Your task to perform on an android device: delete a single message in the gmail app Image 0: 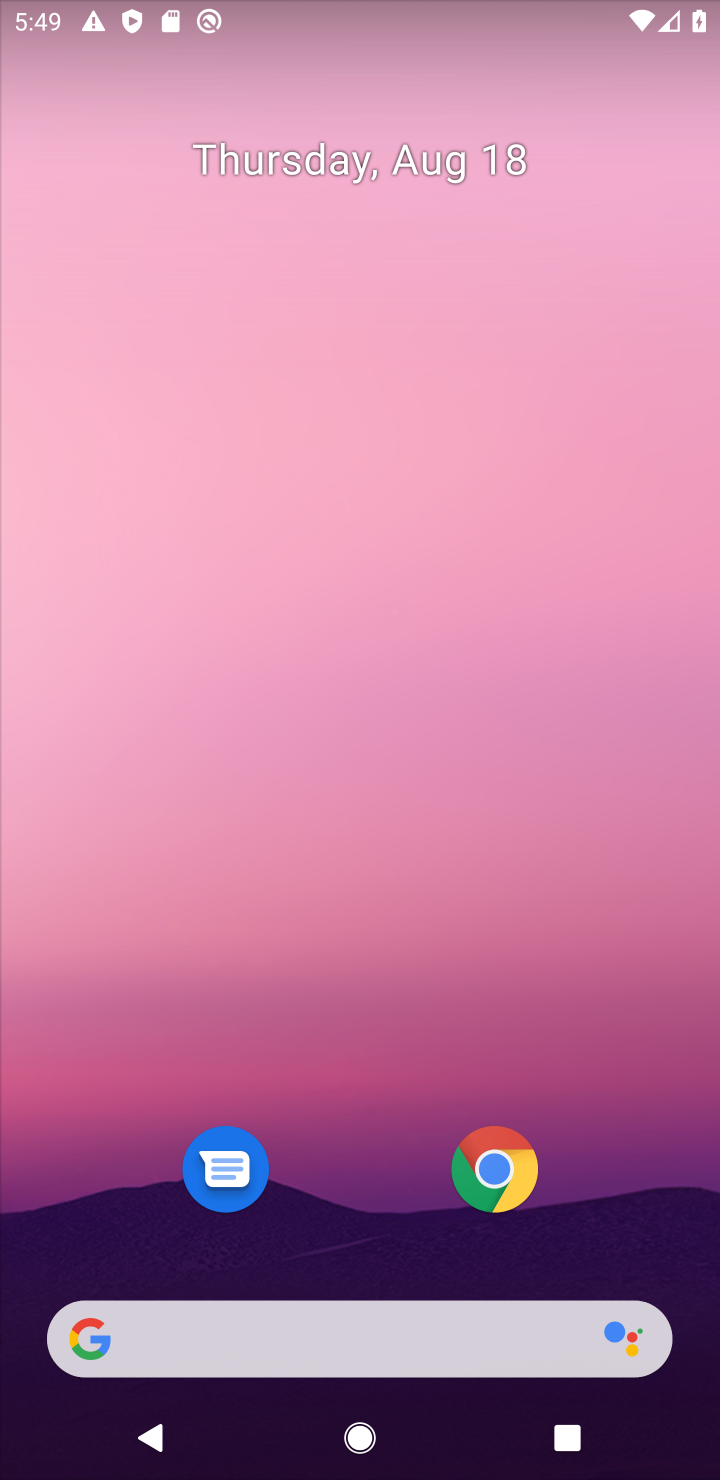
Step 0: press home button
Your task to perform on an android device: delete a single message in the gmail app Image 1: 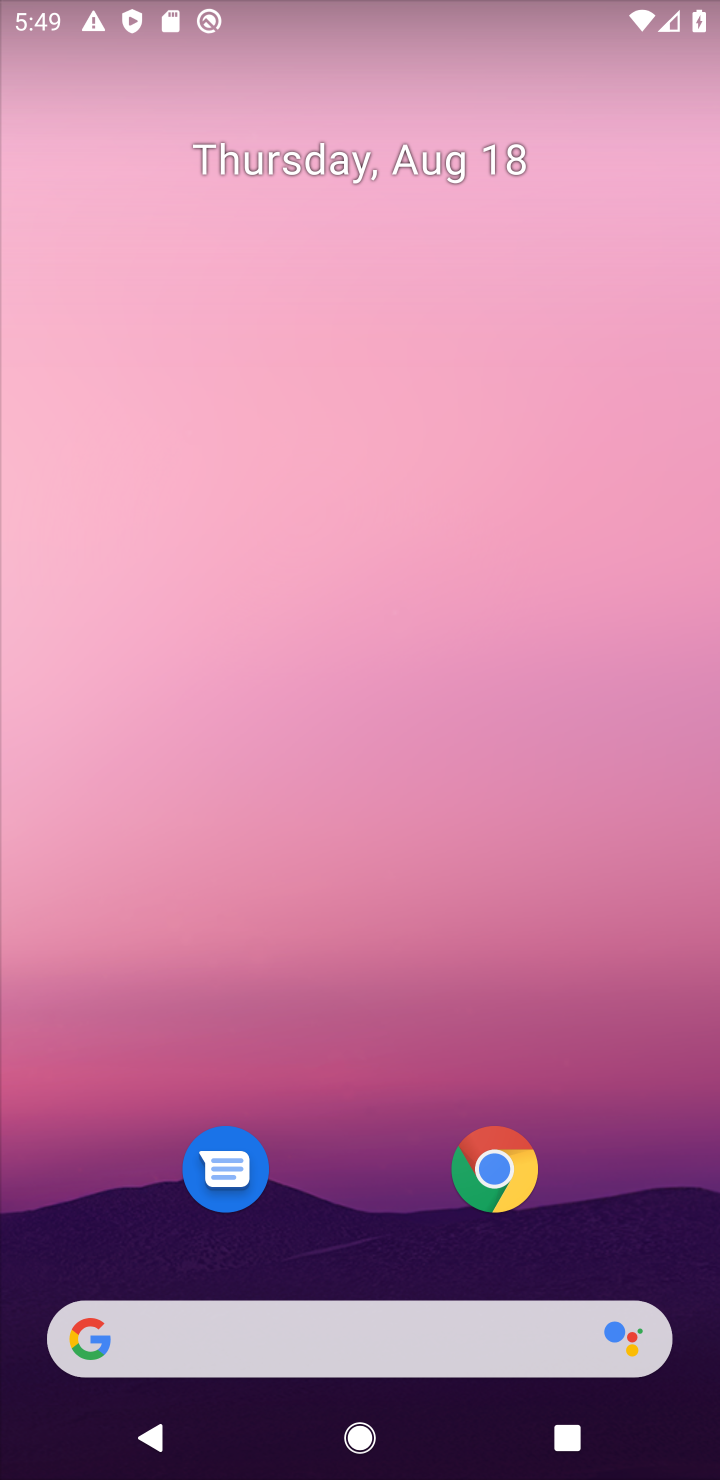
Step 1: drag from (364, 1172) to (247, 46)
Your task to perform on an android device: delete a single message in the gmail app Image 2: 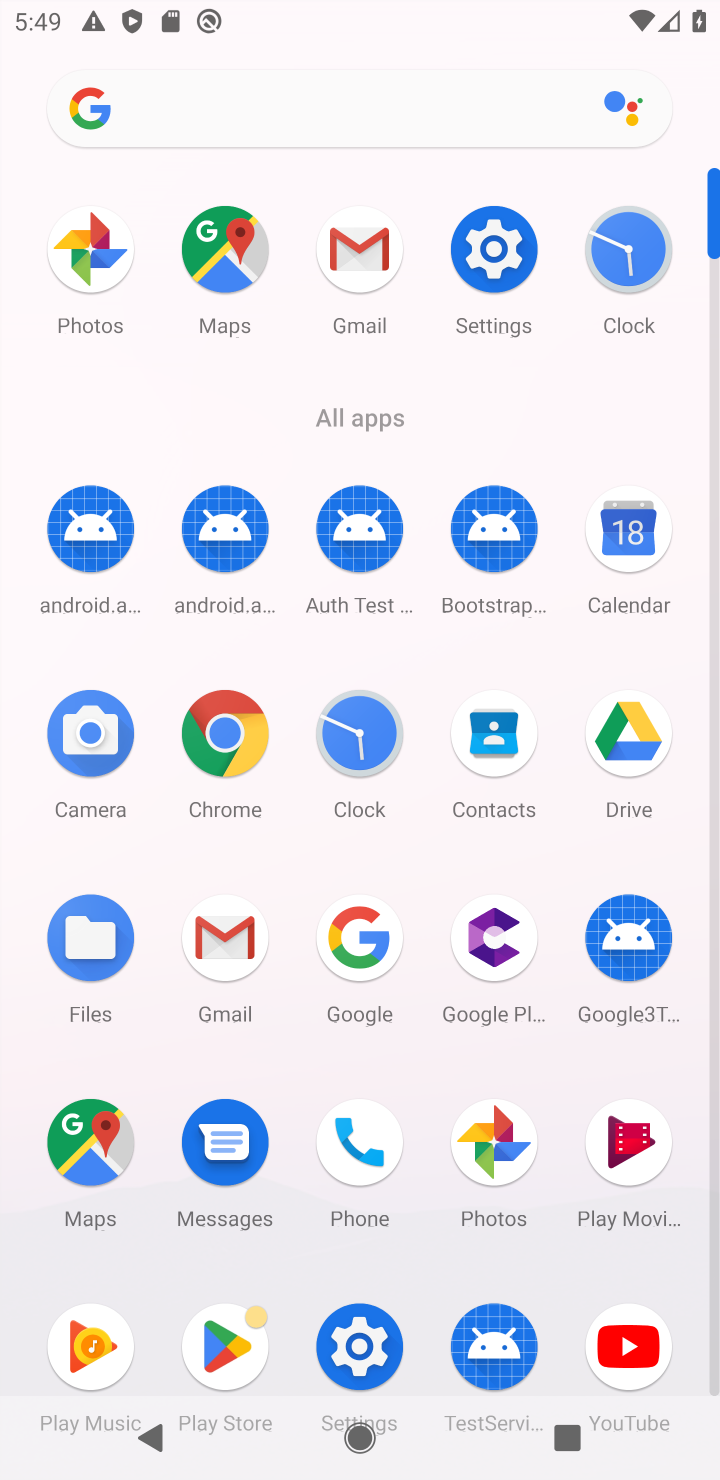
Step 2: click (365, 288)
Your task to perform on an android device: delete a single message in the gmail app Image 3: 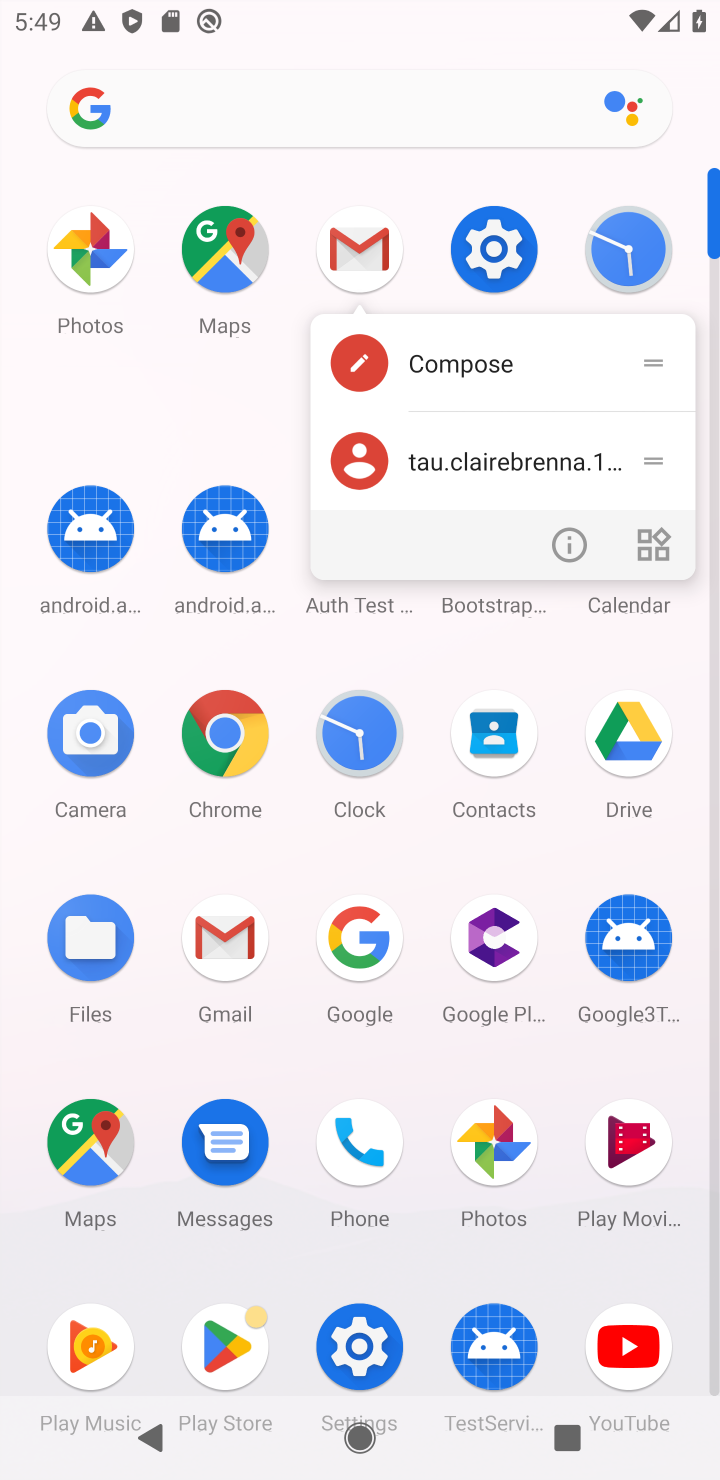
Step 3: click (367, 275)
Your task to perform on an android device: delete a single message in the gmail app Image 4: 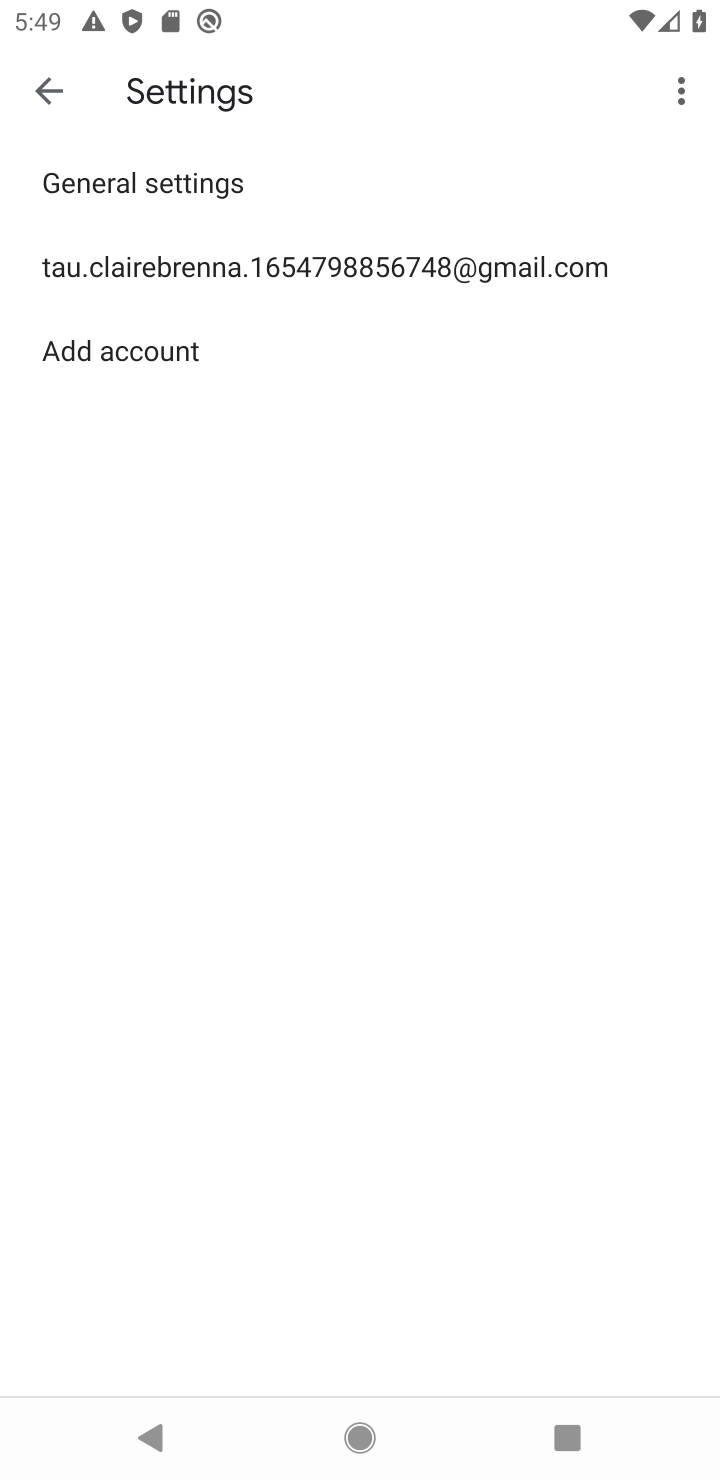
Step 4: press back button
Your task to perform on an android device: delete a single message in the gmail app Image 5: 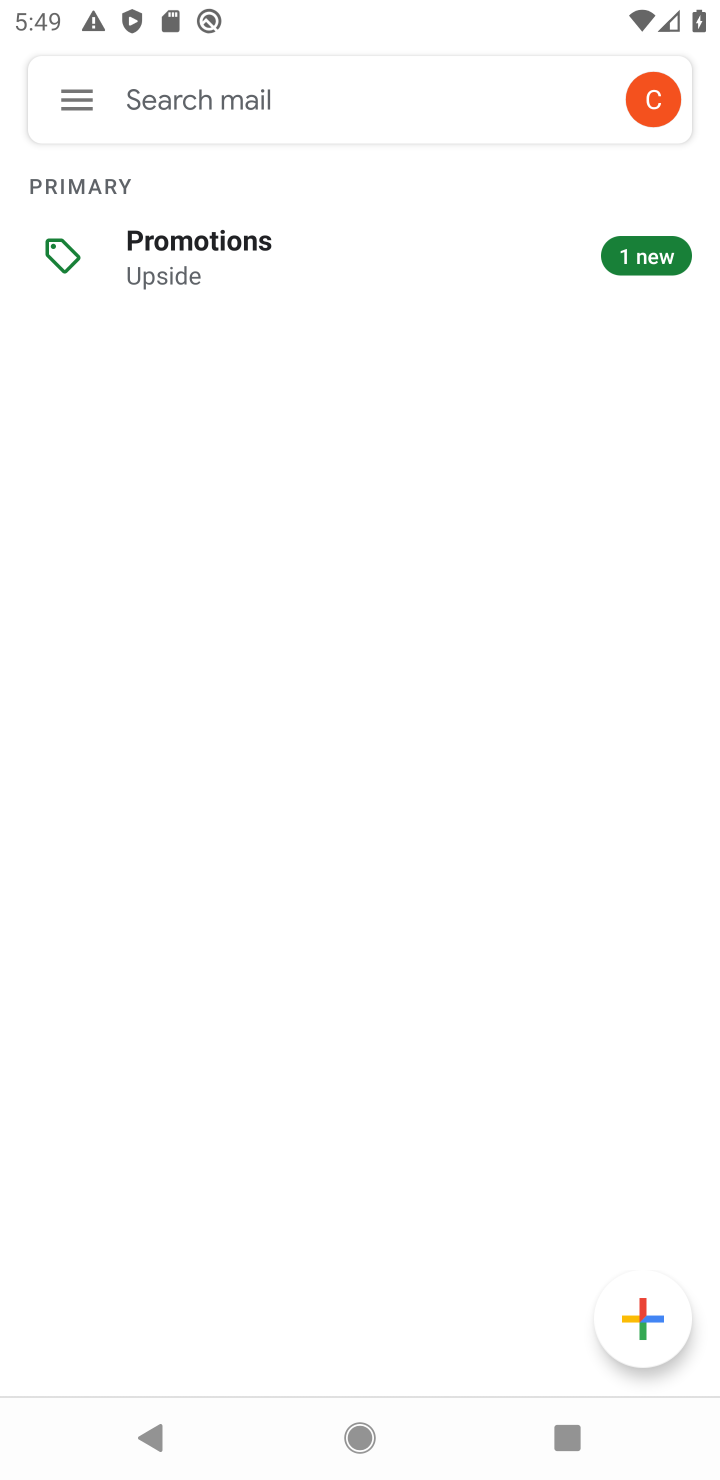
Step 5: click (77, 101)
Your task to perform on an android device: delete a single message in the gmail app Image 6: 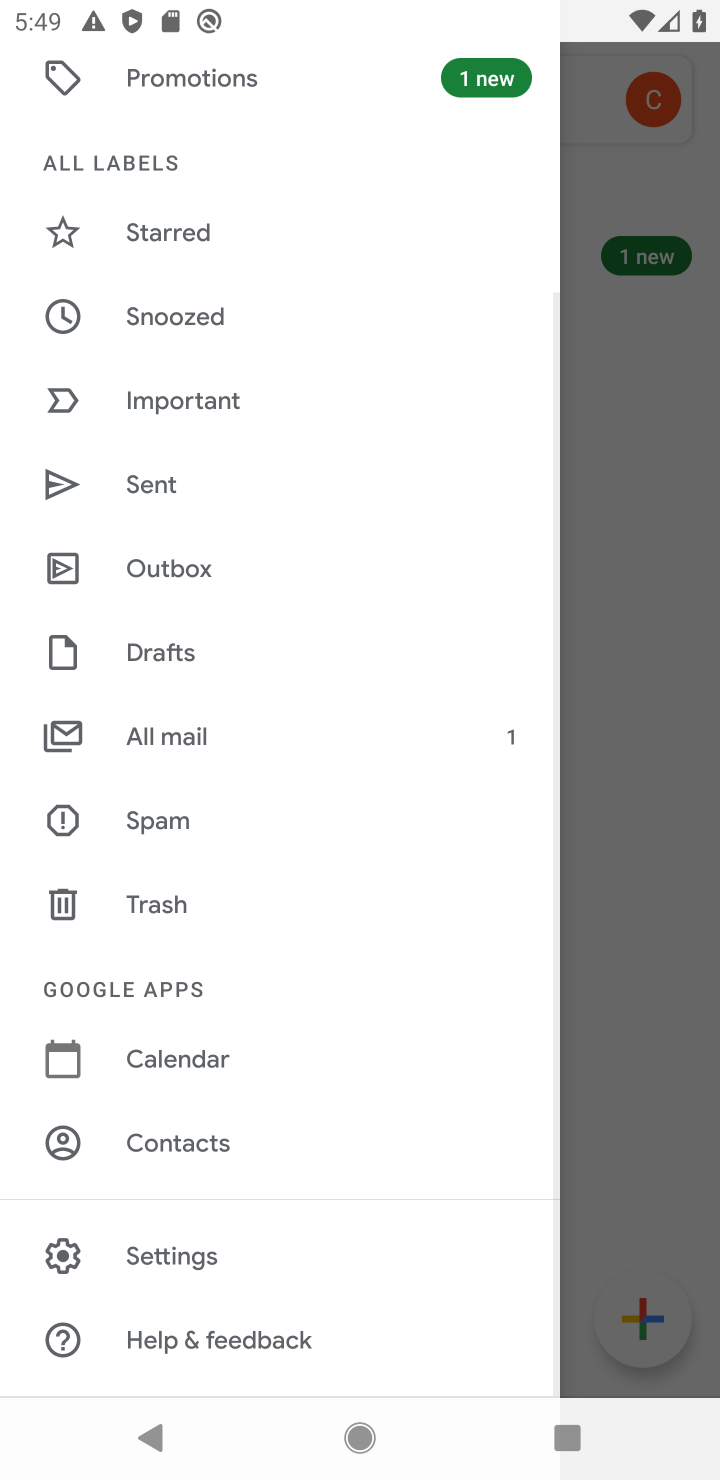
Step 6: click (186, 737)
Your task to perform on an android device: delete a single message in the gmail app Image 7: 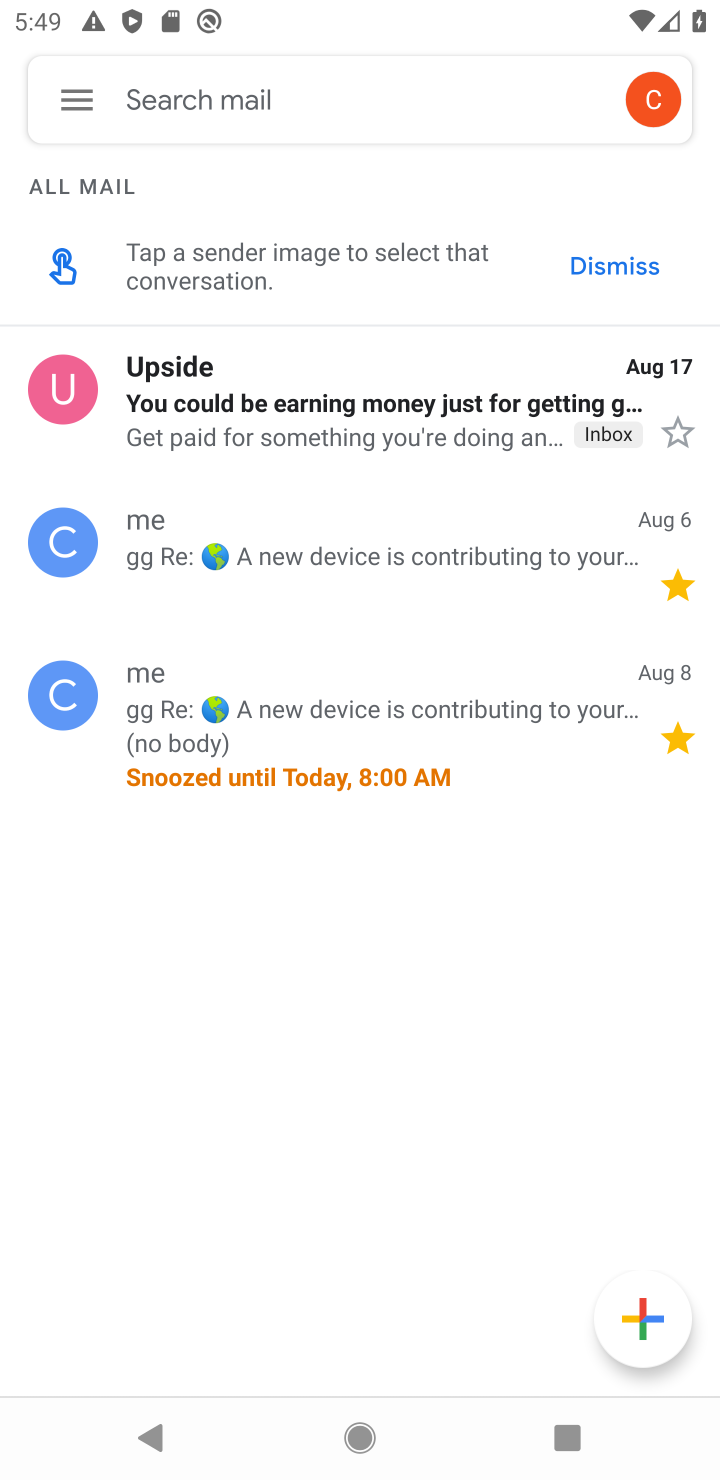
Step 7: click (441, 413)
Your task to perform on an android device: delete a single message in the gmail app Image 8: 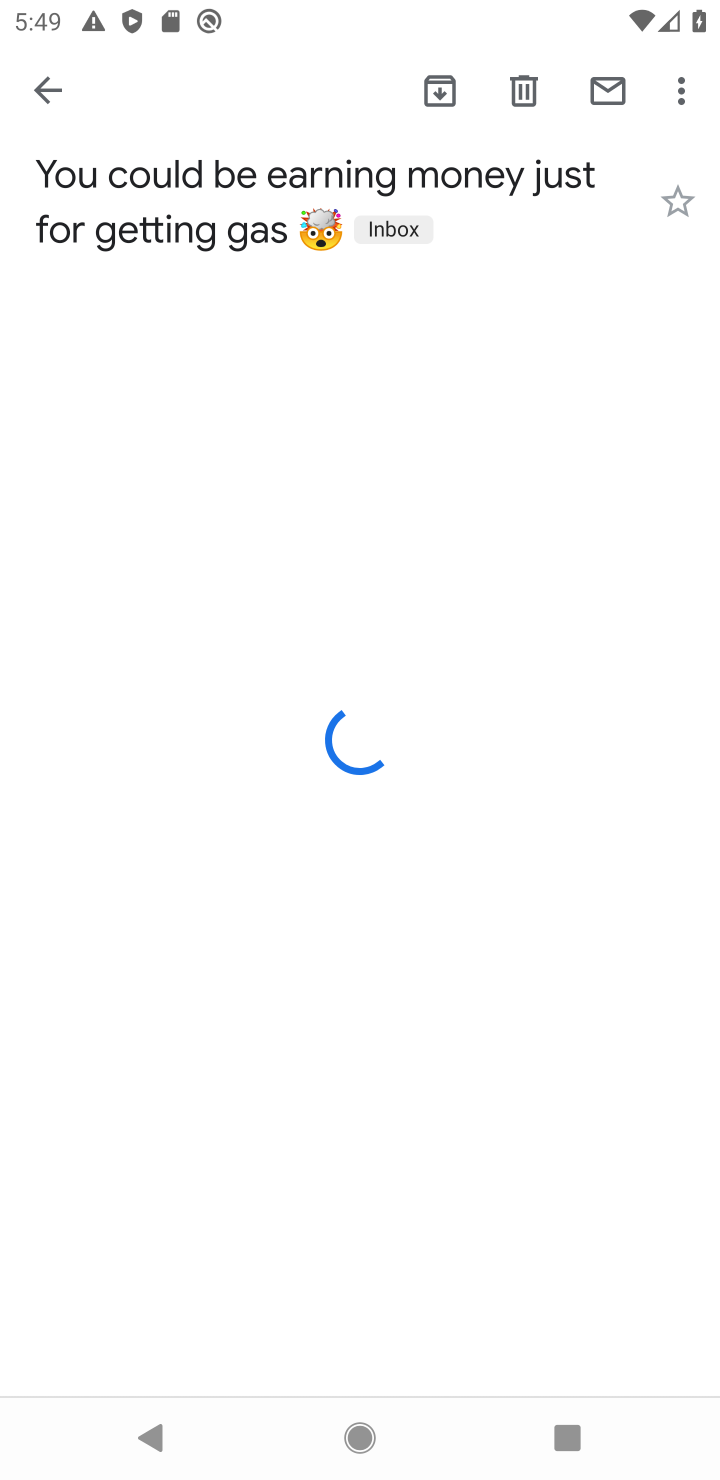
Step 8: click (527, 96)
Your task to perform on an android device: delete a single message in the gmail app Image 9: 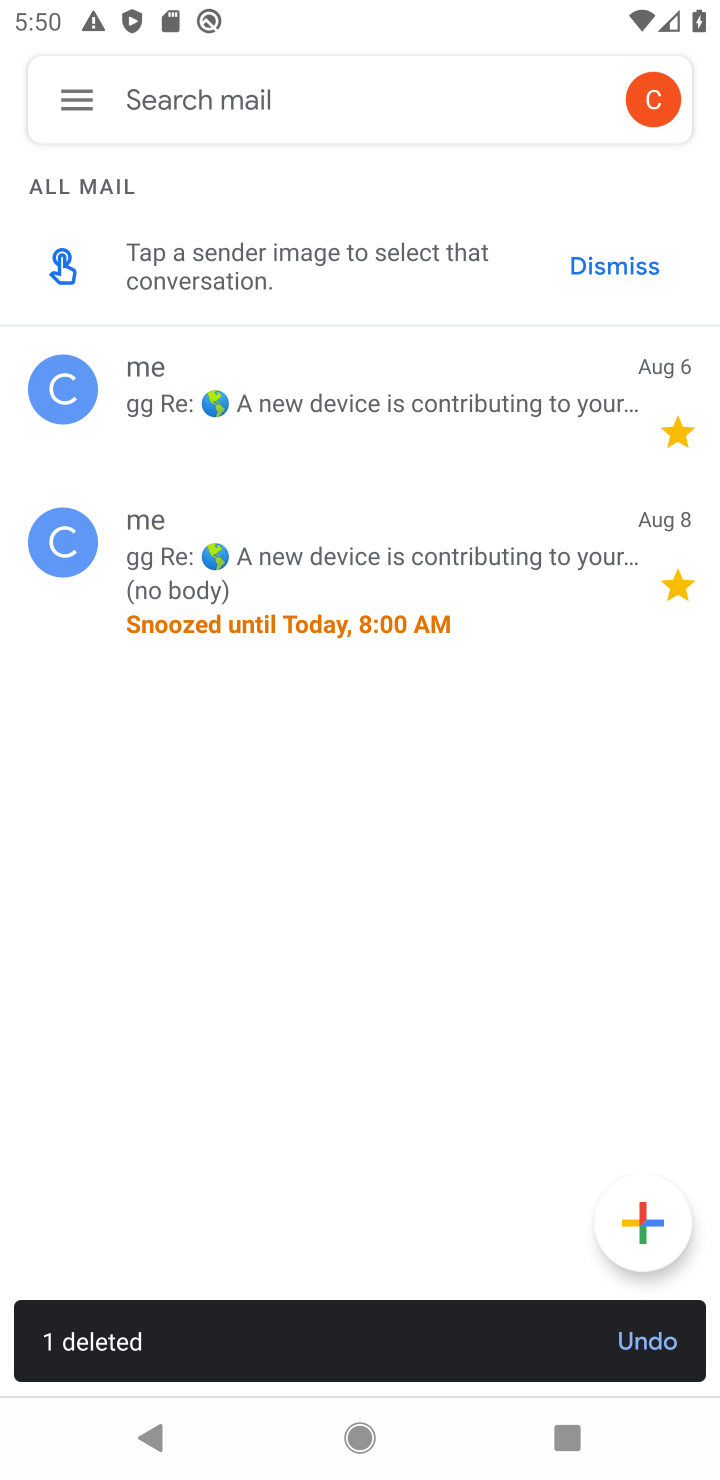
Step 9: task complete